Your task to perform on an android device: Clear the cart on amazon.com. Search for "macbook air" on amazon.com, select the first entry, add it to the cart, then select checkout. Image 0: 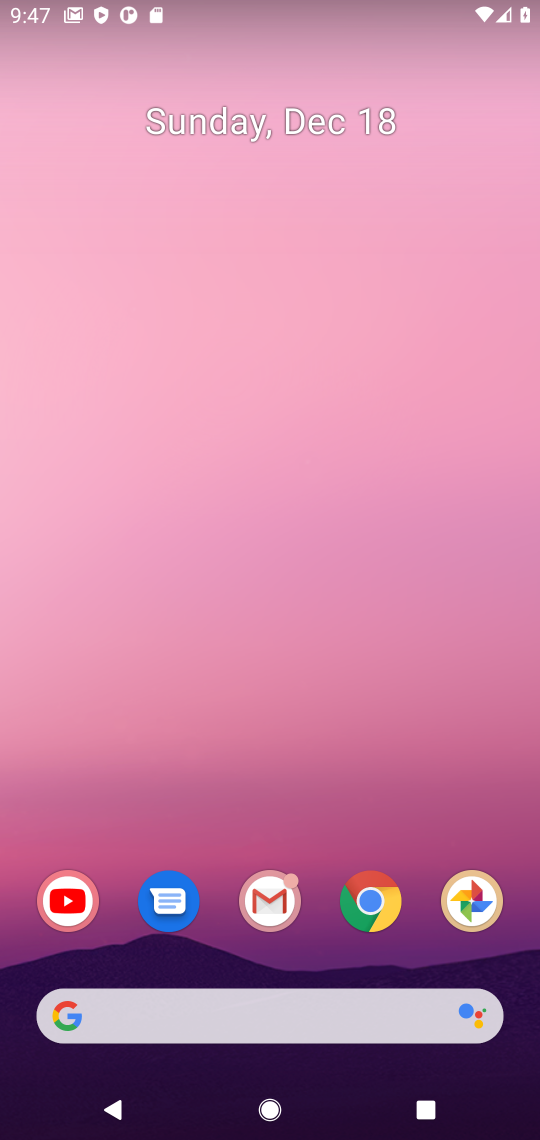
Step 0: click (362, 875)
Your task to perform on an android device: Clear the cart on amazon.com. Search for "macbook air" on amazon.com, select the first entry, add it to the cart, then select checkout. Image 1: 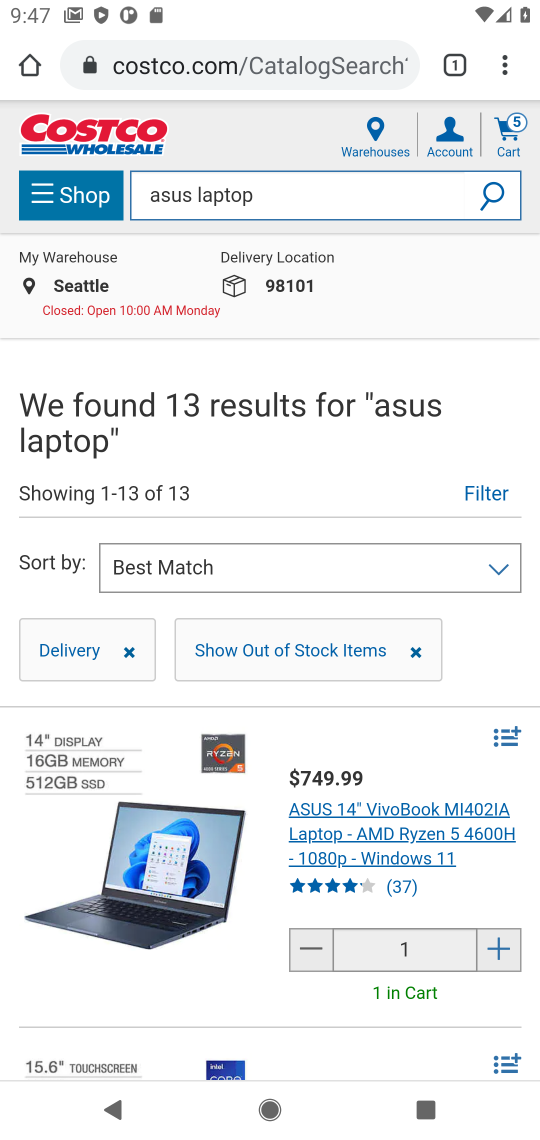
Step 1: task complete